Your task to perform on an android device: toggle wifi Image 0: 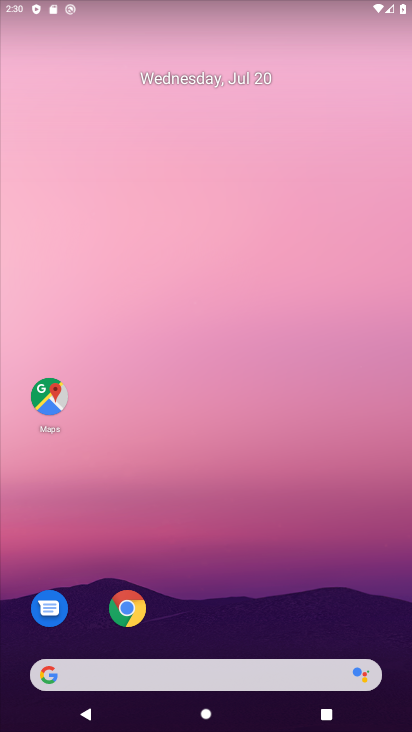
Step 0: drag from (216, 629) to (180, 102)
Your task to perform on an android device: toggle wifi Image 1: 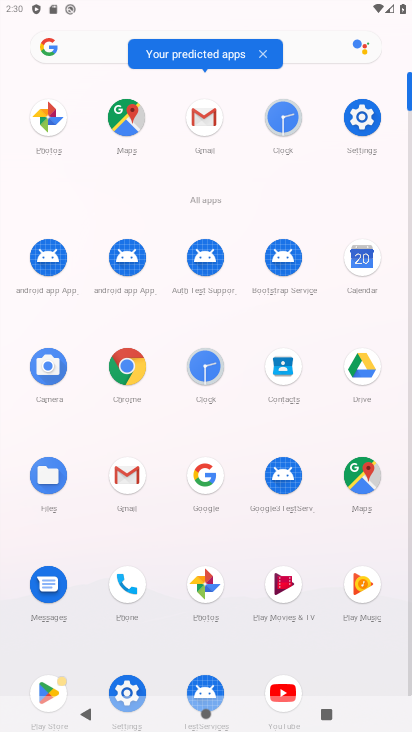
Step 1: click (362, 119)
Your task to perform on an android device: toggle wifi Image 2: 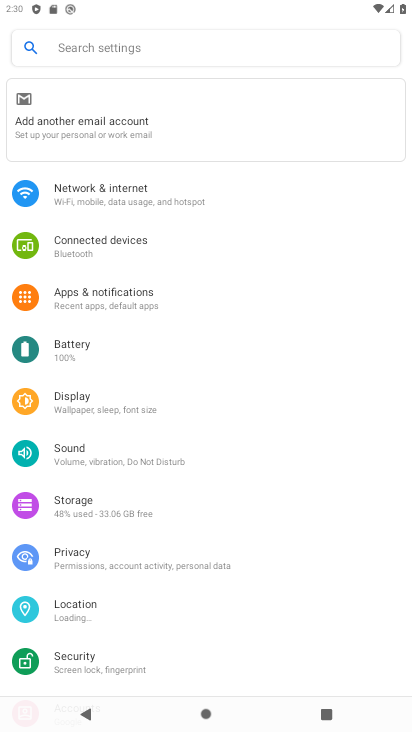
Step 2: click (147, 110)
Your task to perform on an android device: toggle wifi Image 3: 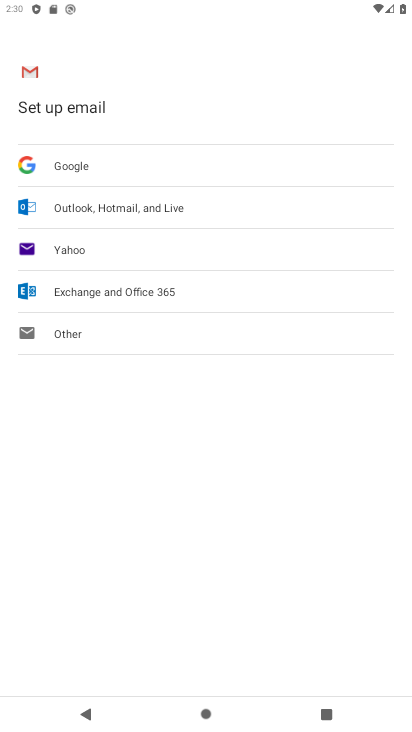
Step 3: press back button
Your task to perform on an android device: toggle wifi Image 4: 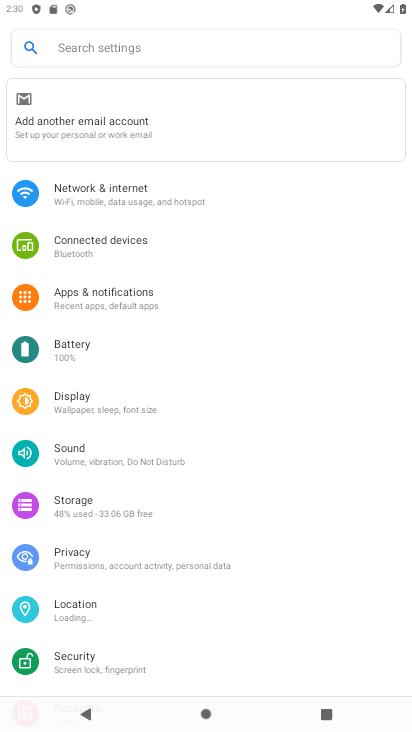
Step 4: click (102, 209)
Your task to perform on an android device: toggle wifi Image 5: 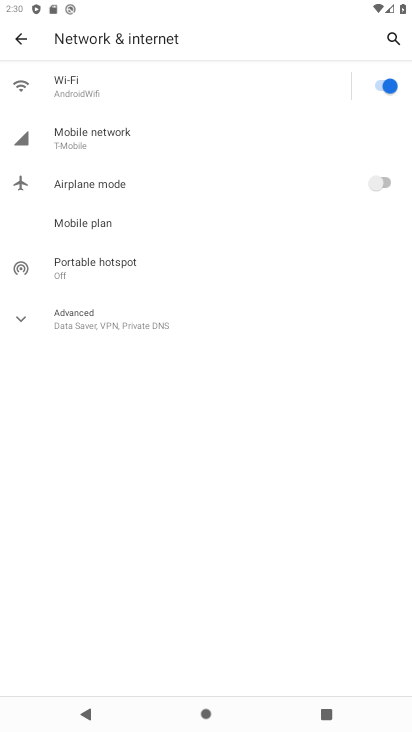
Step 5: click (85, 74)
Your task to perform on an android device: toggle wifi Image 6: 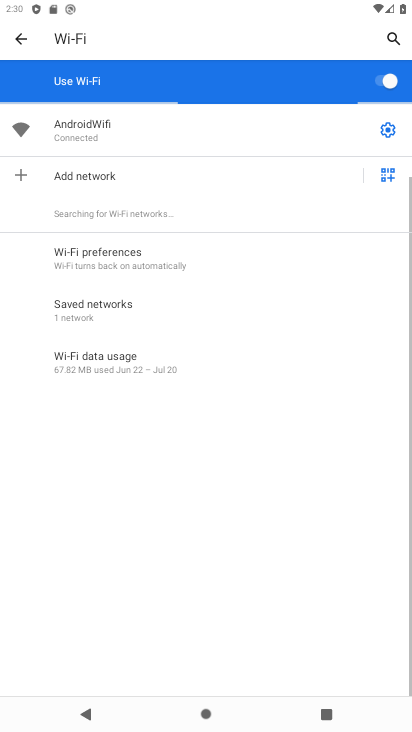
Step 6: click (363, 82)
Your task to perform on an android device: toggle wifi Image 7: 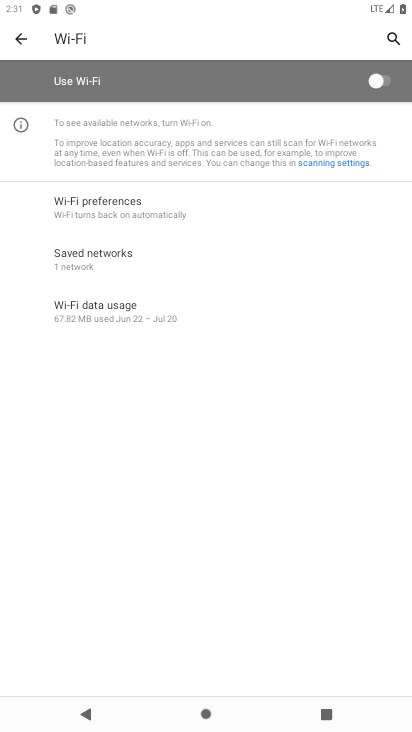
Step 7: task complete